Your task to perform on an android device: Open Chrome and go to the settings page Image 0: 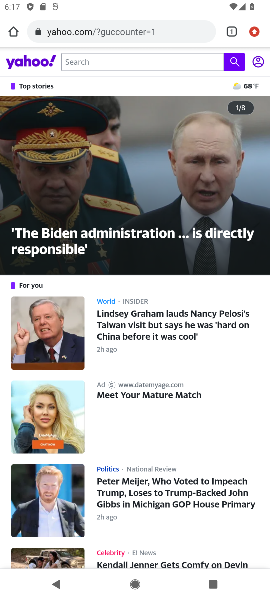
Step 0: click (252, 32)
Your task to perform on an android device: Open Chrome and go to the settings page Image 1: 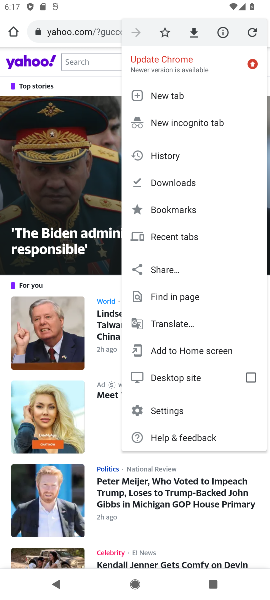
Step 1: click (166, 410)
Your task to perform on an android device: Open Chrome and go to the settings page Image 2: 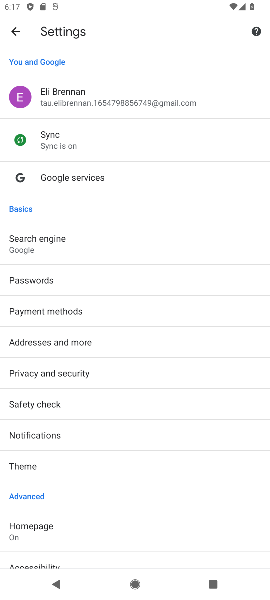
Step 2: task complete